Your task to perform on an android device: Set the phone to "Do not disturb". Image 0: 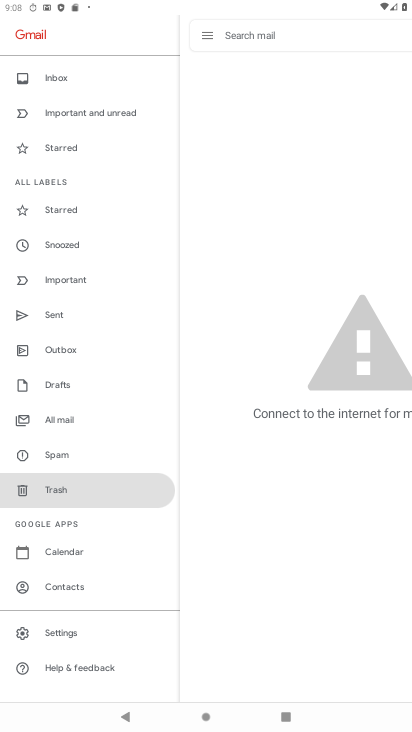
Step 0: press back button
Your task to perform on an android device: Set the phone to "Do not disturb". Image 1: 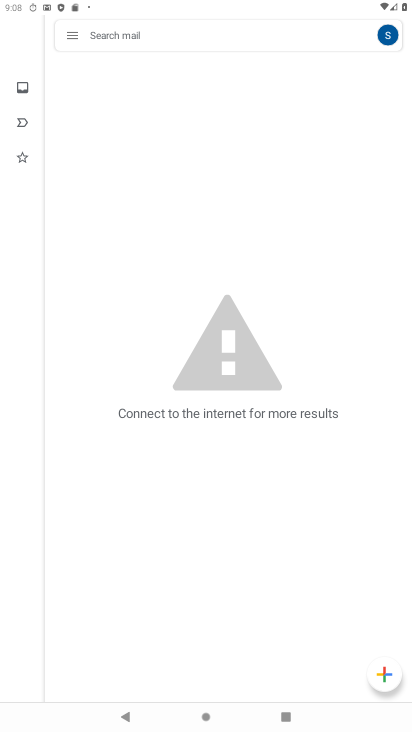
Step 1: press home button
Your task to perform on an android device: Set the phone to "Do not disturb". Image 2: 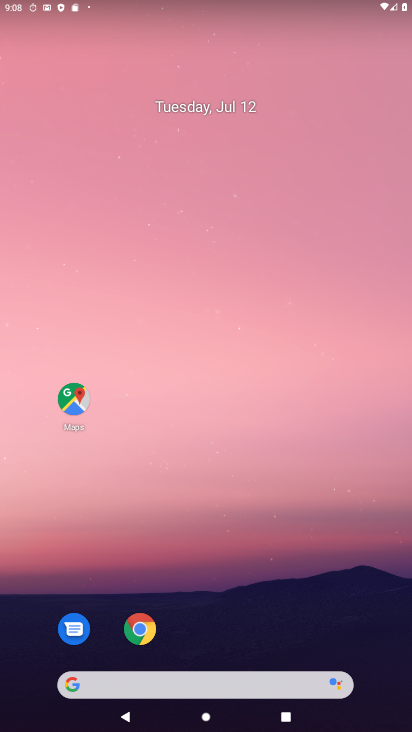
Step 2: drag from (195, 409) to (149, 198)
Your task to perform on an android device: Set the phone to "Do not disturb". Image 3: 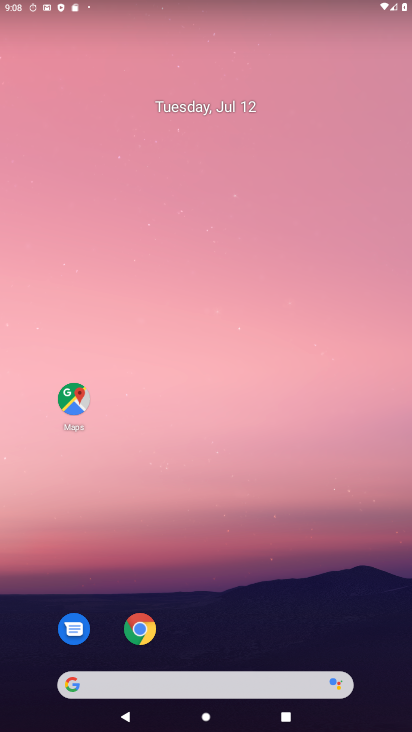
Step 3: drag from (252, 592) to (201, 194)
Your task to perform on an android device: Set the phone to "Do not disturb". Image 4: 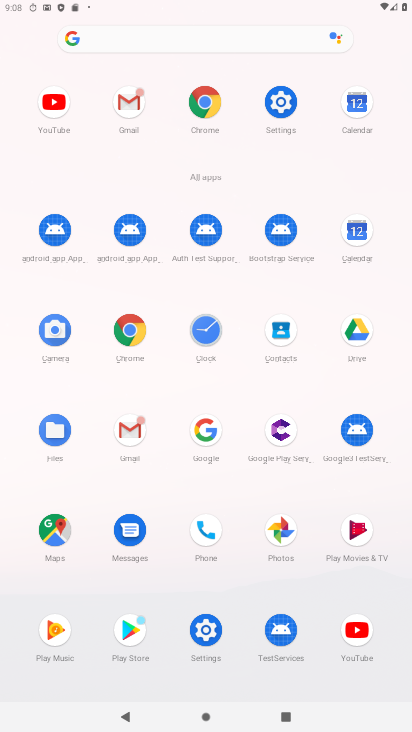
Step 4: click (287, 90)
Your task to perform on an android device: Set the phone to "Do not disturb". Image 5: 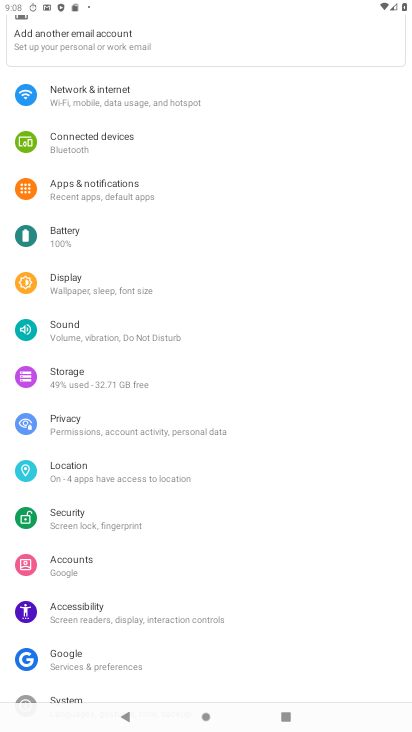
Step 5: click (79, 292)
Your task to perform on an android device: Set the phone to "Do not disturb". Image 6: 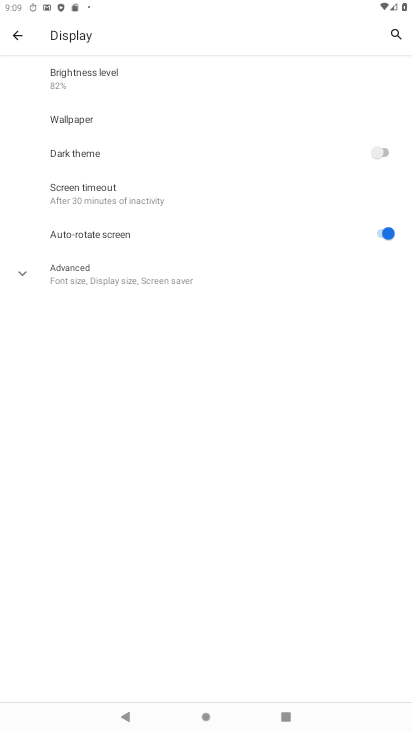
Step 6: click (16, 51)
Your task to perform on an android device: Set the phone to "Do not disturb". Image 7: 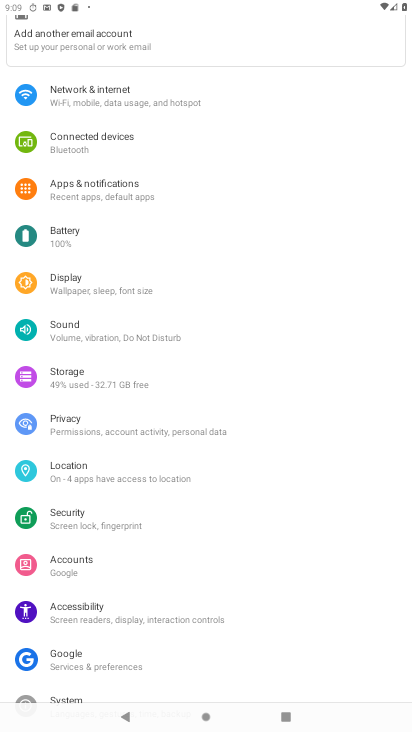
Step 7: click (72, 334)
Your task to perform on an android device: Set the phone to "Do not disturb". Image 8: 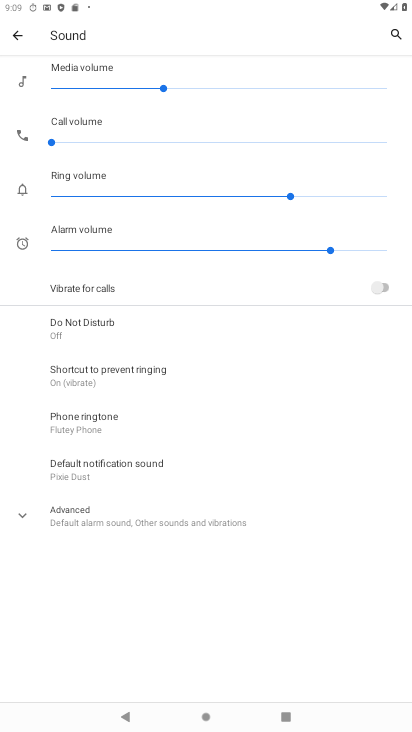
Step 8: click (80, 320)
Your task to perform on an android device: Set the phone to "Do not disturb". Image 9: 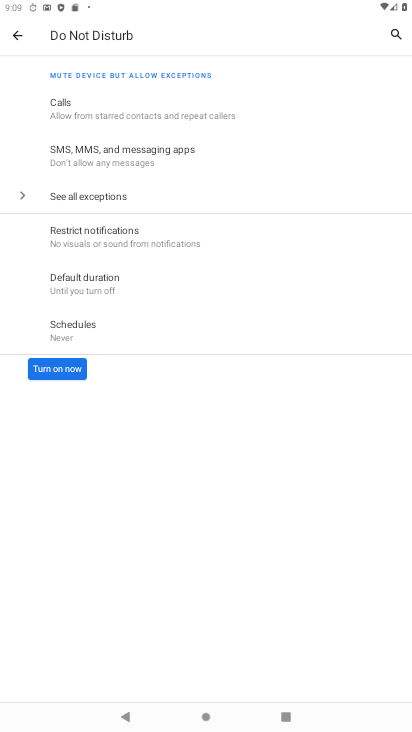
Step 9: task complete